Your task to perform on an android device: toggle data saver in the chrome app Image 0: 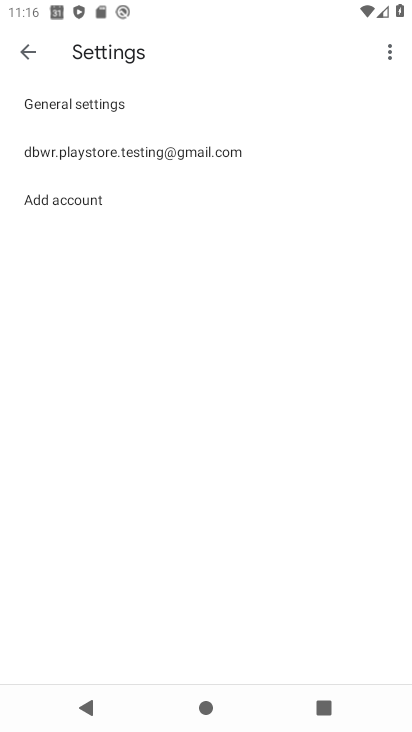
Step 0: press home button
Your task to perform on an android device: toggle data saver in the chrome app Image 1: 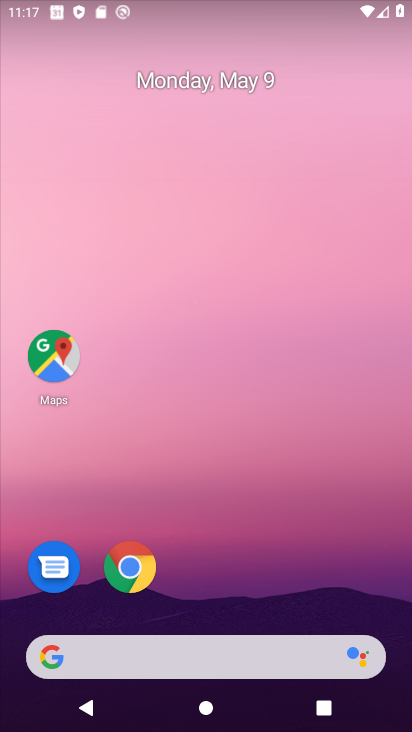
Step 1: drag from (369, 605) to (239, 25)
Your task to perform on an android device: toggle data saver in the chrome app Image 2: 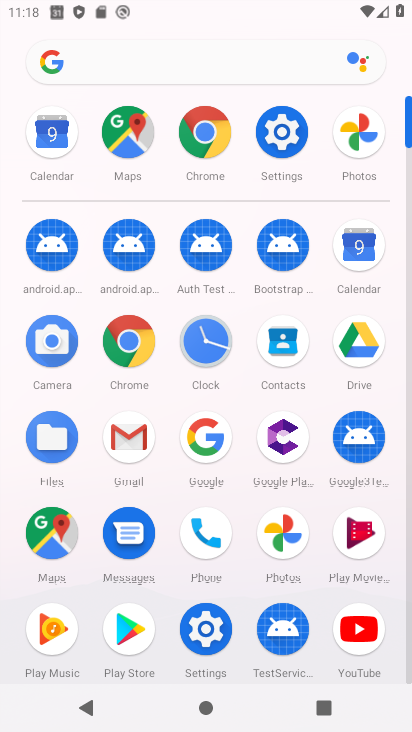
Step 2: click (109, 345)
Your task to perform on an android device: toggle data saver in the chrome app Image 3: 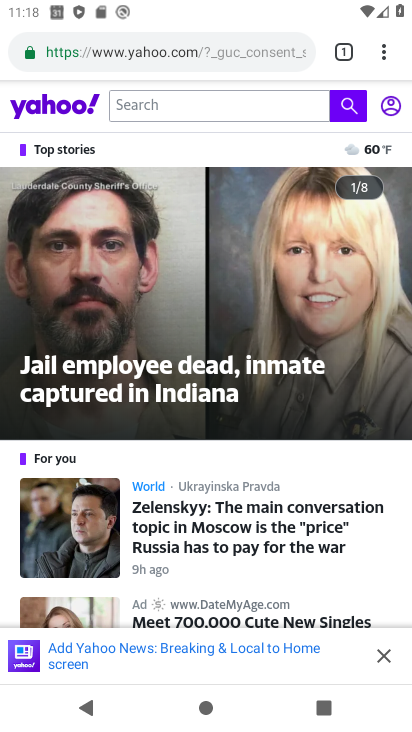
Step 3: press back button
Your task to perform on an android device: toggle data saver in the chrome app Image 4: 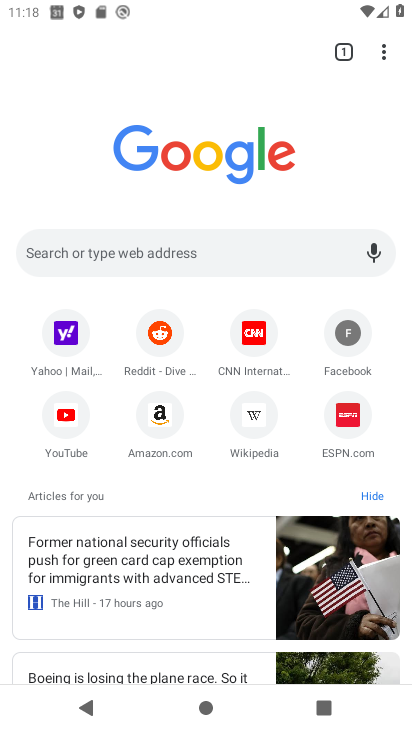
Step 4: click (389, 46)
Your task to perform on an android device: toggle data saver in the chrome app Image 5: 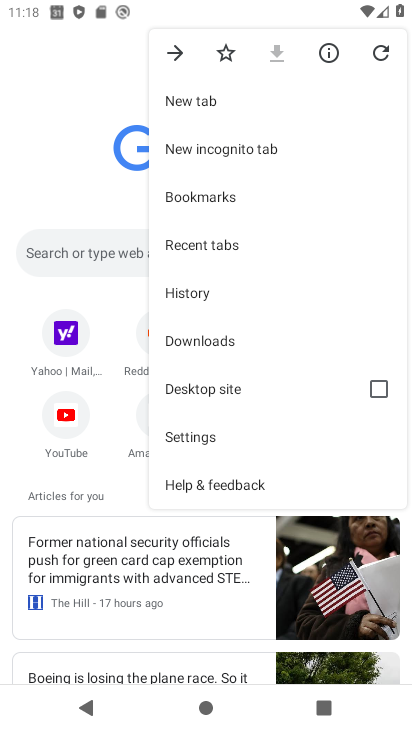
Step 5: click (228, 436)
Your task to perform on an android device: toggle data saver in the chrome app Image 6: 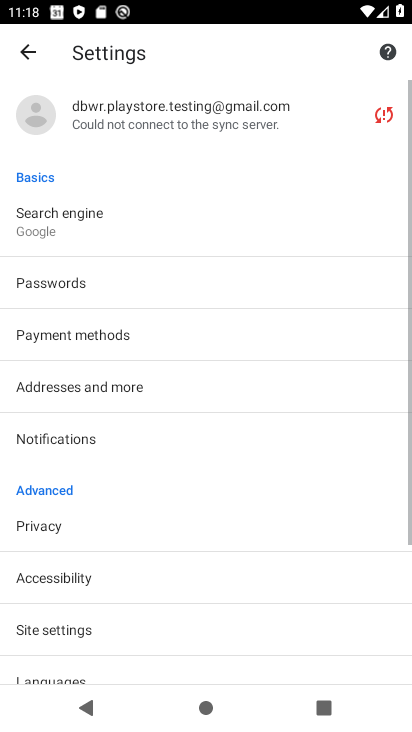
Step 6: drag from (89, 622) to (123, 279)
Your task to perform on an android device: toggle data saver in the chrome app Image 7: 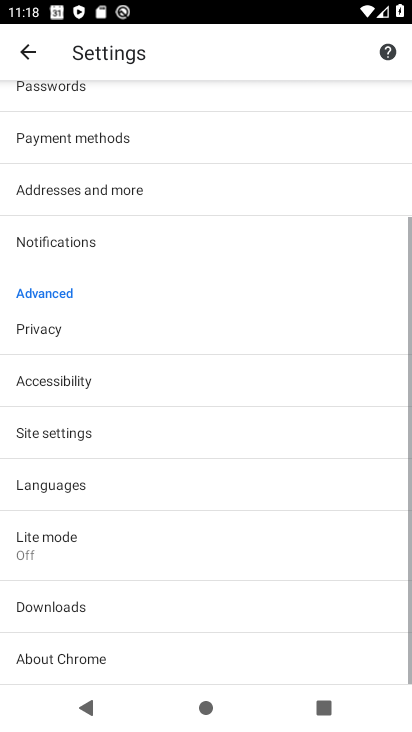
Step 7: click (69, 558)
Your task to perform on an android device: toggle data saver in the chrome app Image 8: 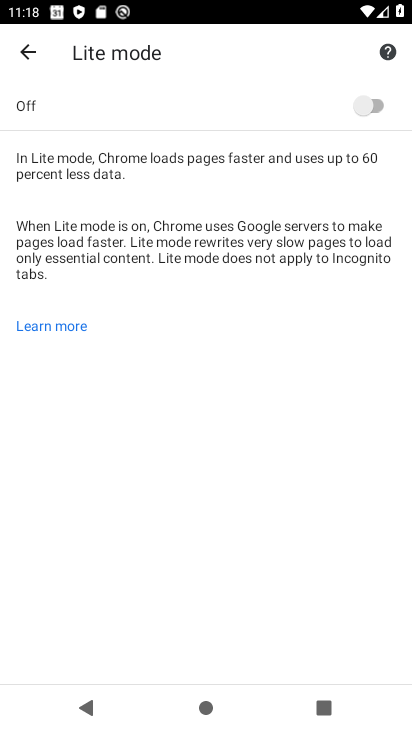
Step 8: click (327, 88)
Your task to perform on an android device: toggle data saver in the chrome app Image 9: 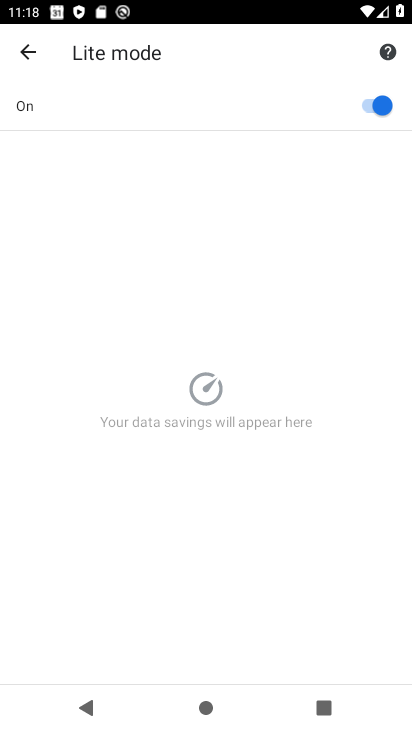
Step 9: task complete